Your task to perform on an android device: turn on priority inbox in the gmail app Image 0: 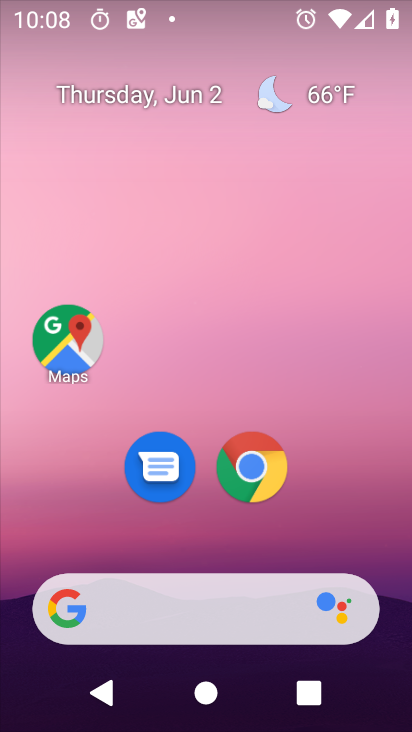
Step 0: drag from (42, 570) to (297, 148)
Your task to perform on an android device: turn on priority inbox in the gmail app Image 1: 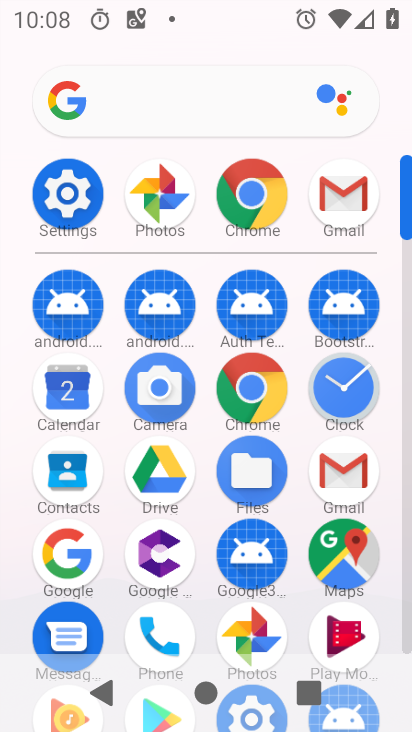
Step 1: click (352, 198)
Your task to perform on an android device: turn on priority inbox in the gmail app Image 2: 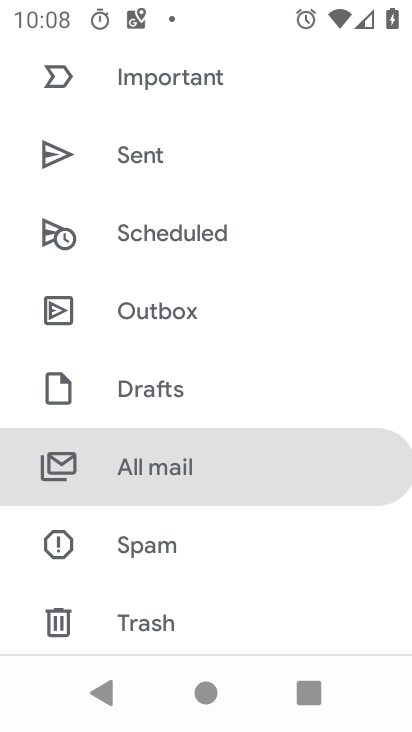
Step 2: drag from (10, 590) to (244, 60)
Your task to perform on an android device: turn on priority inbox in the gmail app Image 3: 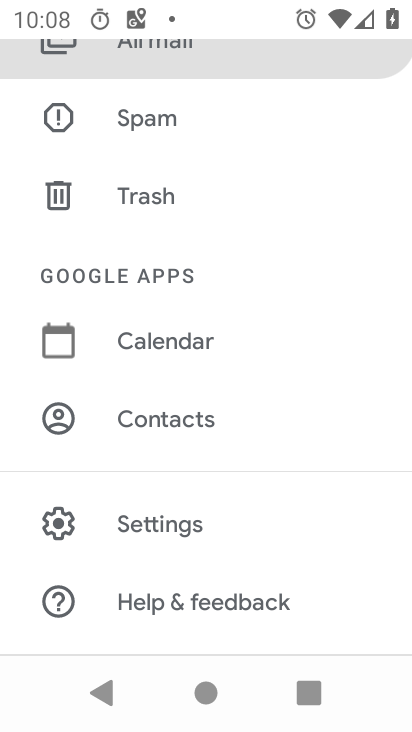
Step 3: click (72, 530)
Your task to perform on an android device: turn on priority inbox in the gmail app Image 4: 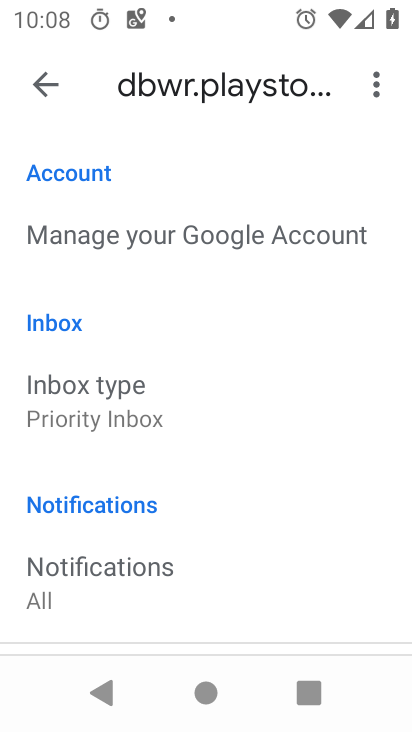
Step 4: task complete